Your task to perform on an android device: Check the news Image 0: 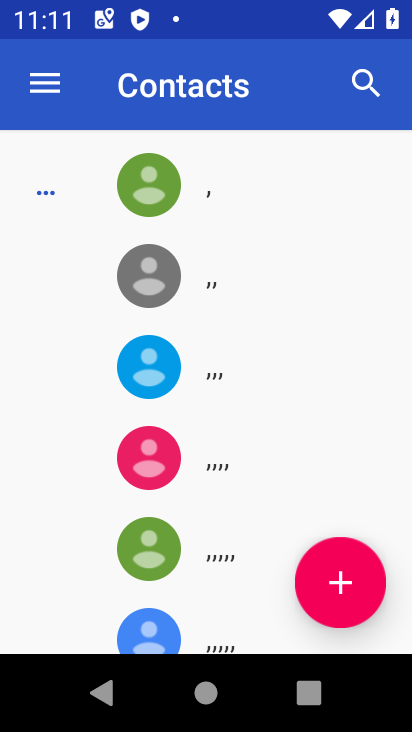
Step 0: press home button
Your task to perform on an android device: Check the news Image 1: 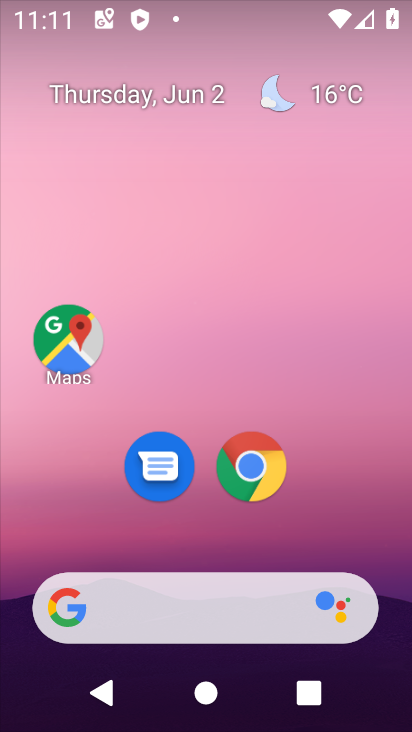
Step 1: drag from (213, 552) to (225, 212)
Your task to perform on an android device: Check the news Image 2: 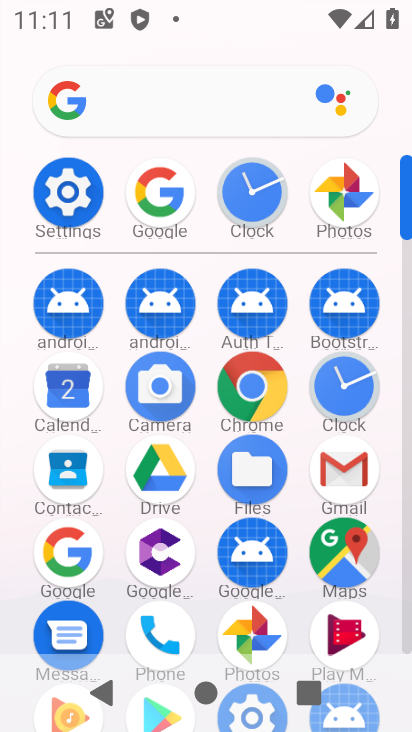
Step 2: click (181, 189)
Your task to perform on an android device: Check the news Image 3: 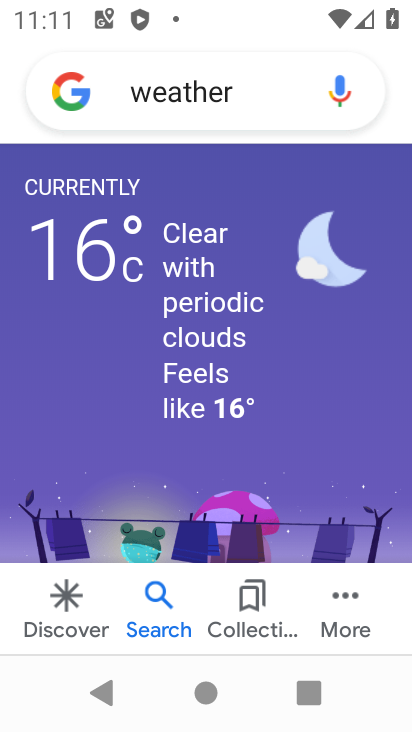
Step 3: drag from (244, 509) to (273, 256)
Your task to perform on an android device: Check the news Image 4: 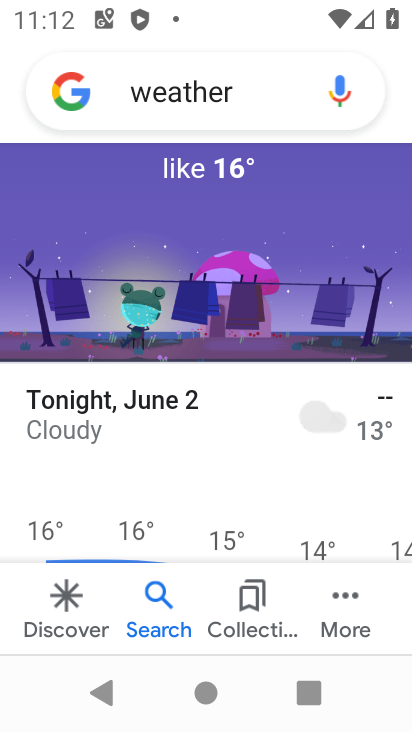
Step 4: click (273, 92)
Your task to perform on an android device: Check the news Image 5: 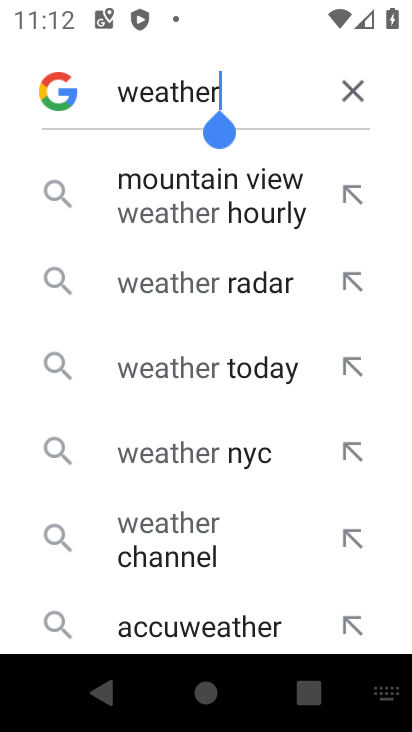
Step 5: click (345, 85)
Your task to perform on an android device: Check the news Image 6: 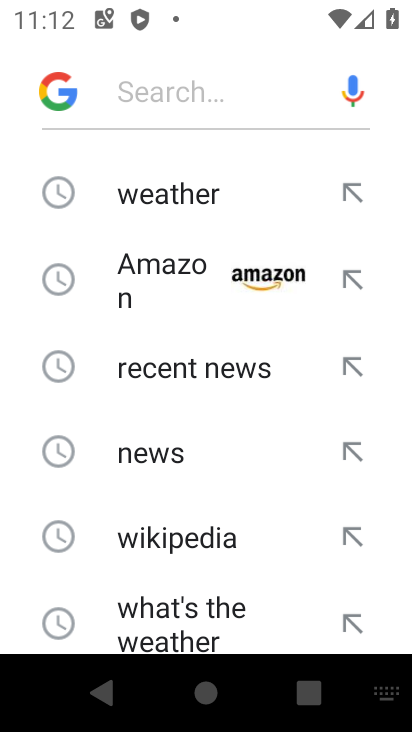
Step 6: click (171, 443)
Your task to perform on an android device: Check the news Image 7: 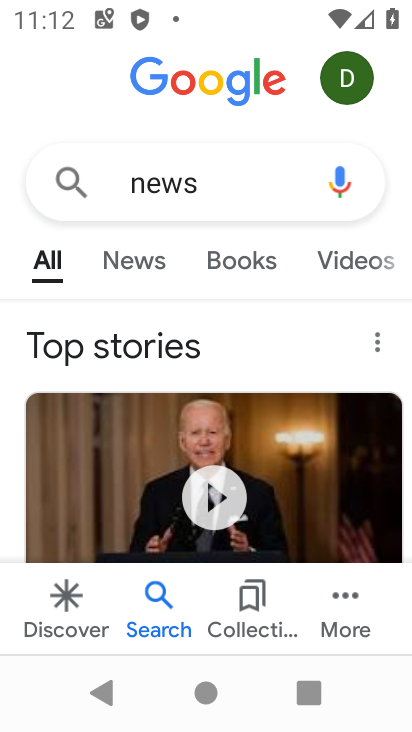
Step 7: click (155, 259)
Your task to perform on an android device: Check the news Image 8: 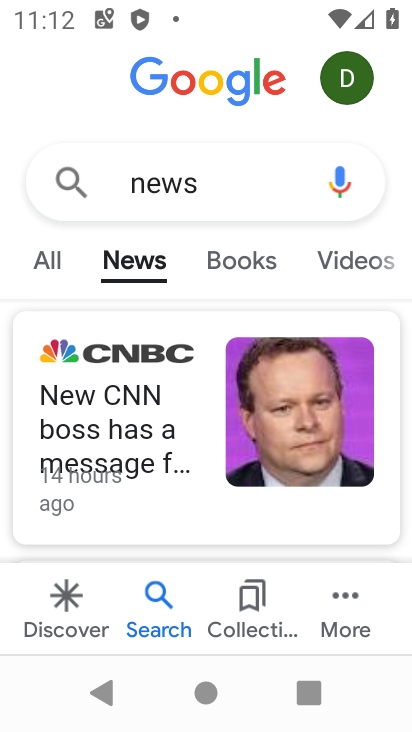
Step 8: task complete